Your task to perform on an android device: toggle improve location accuracy Image 0: 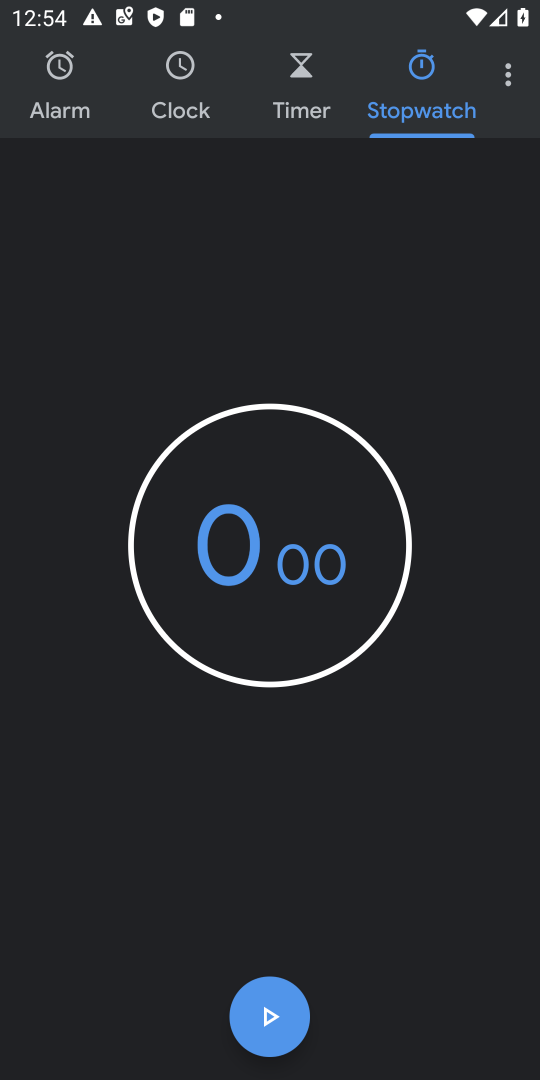
Step 0: press home button
Your task to perform on an android device: toggle improve location accuracy Image 1: 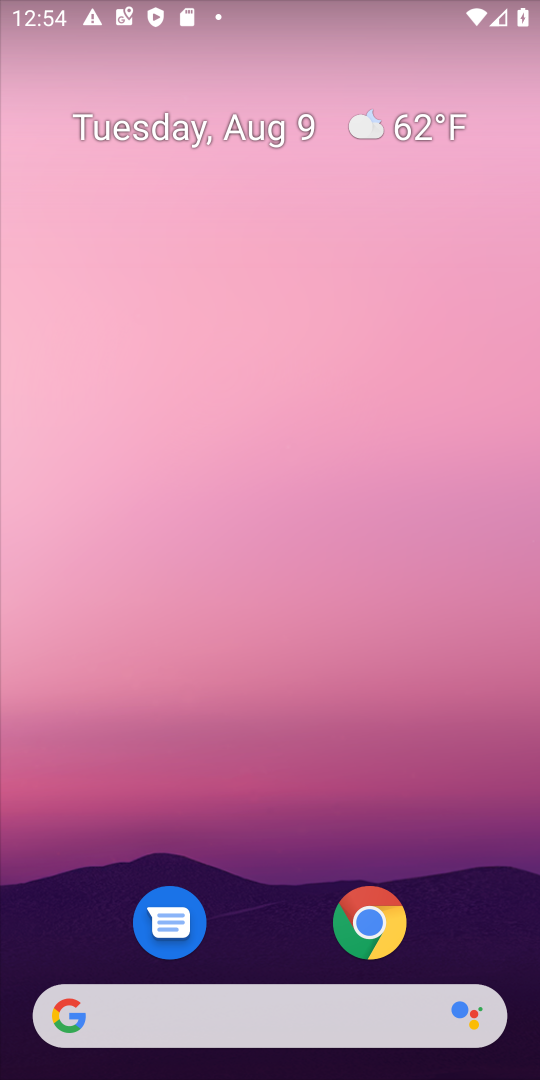
Step 1: drag from (237, 981) to (250, 281)
Your task to perform on an android device: toggle improve location accuracy Image 2: 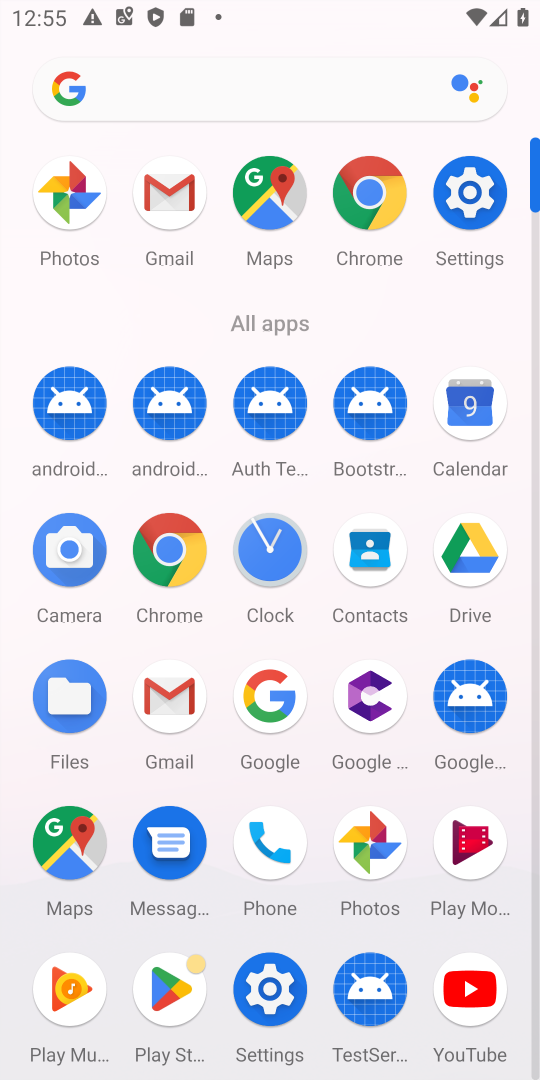
Step 2: click (473, 187)
Your task to perform on an android device: toggle improve location accuracy Image 3: 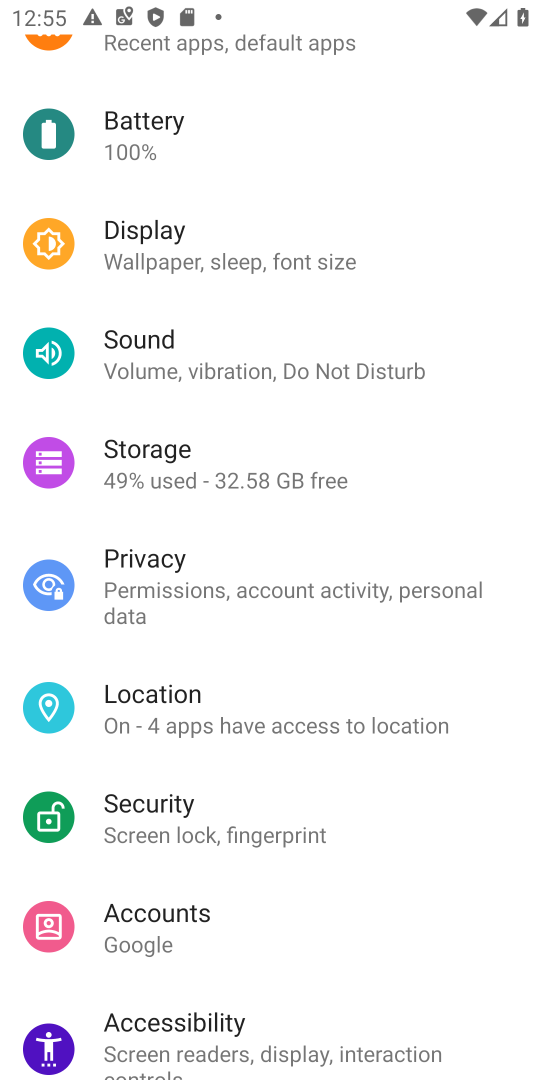
Step 3: click (201, 748)
Your task to perform on an android device: toggle improve location accuracy Image 4: 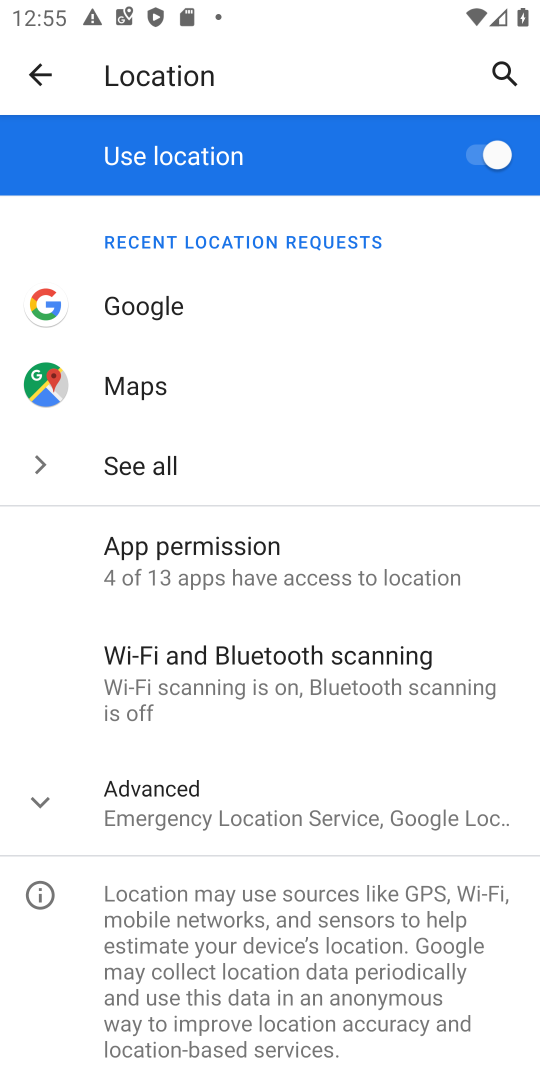
Step 4: click (178, 804)
Your task to perform on an android device: toggle improve location accuracy Image 5: 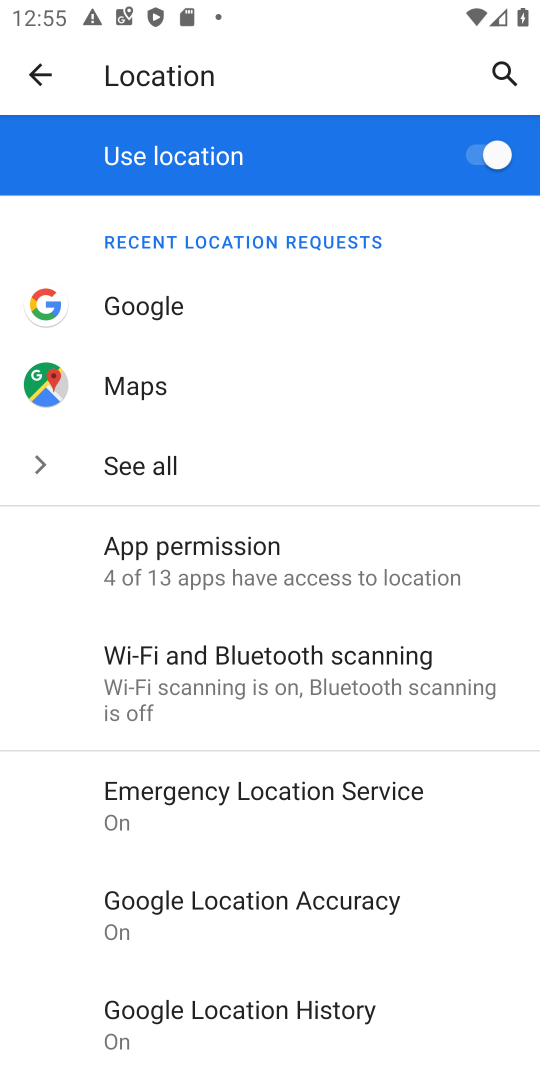
Step 5: click (291, 890)
Your task to perform on an android device: toggle improve location accuracy Image 6: 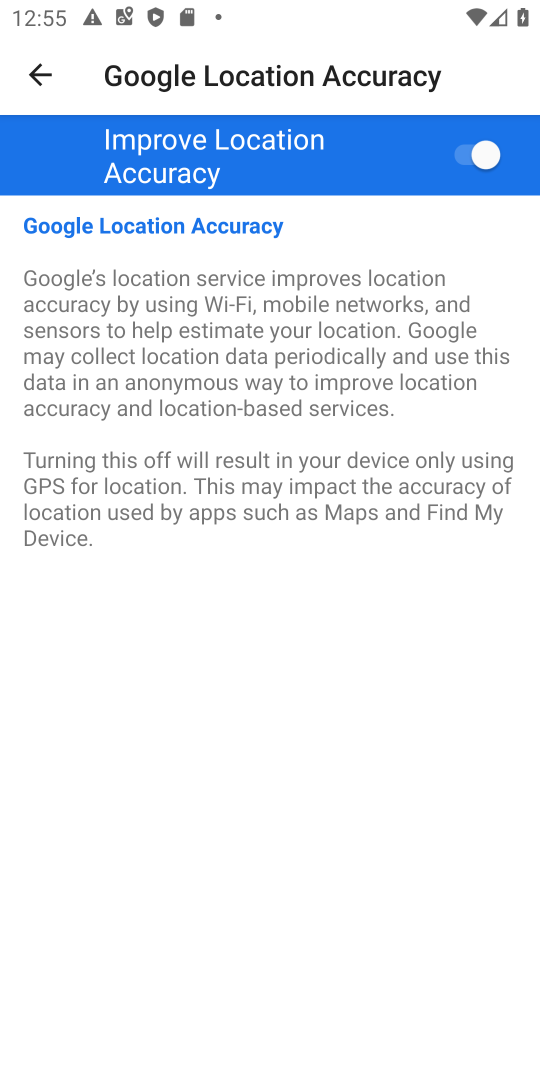
Step 6: click (479, 141)
Your task to perform on an android device: toggle improve location accuracy Image 7: 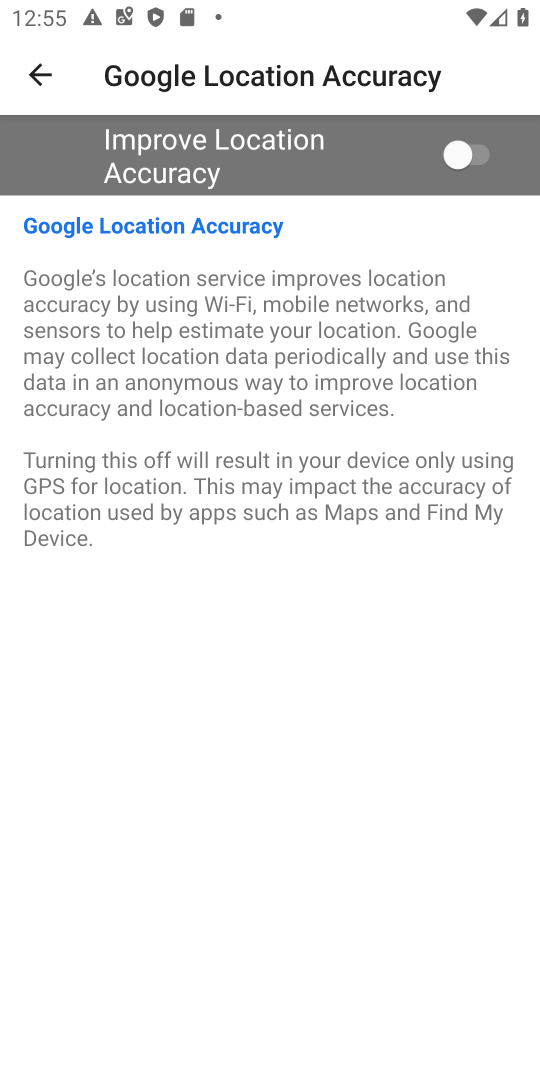
Step 7: task complete